Your task to perform on an android device: check android version Image 0: 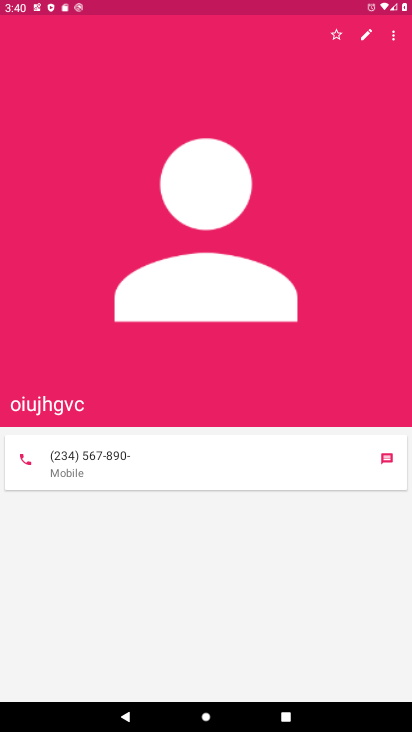
Step 0: press home button
Your task to perform on an android device: check android version Image 1: 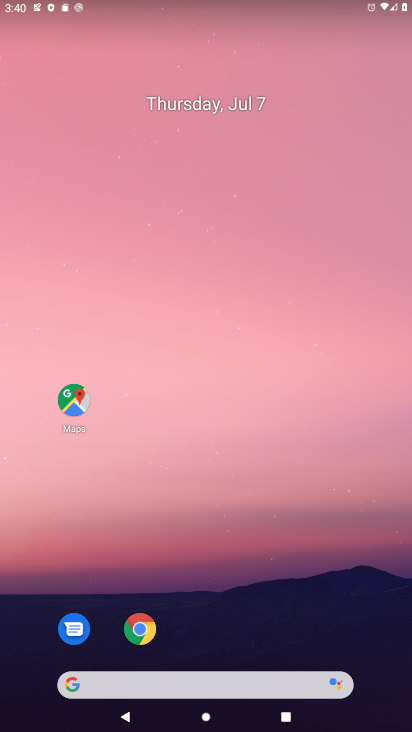
Step 1: drag from (136, 12) to (133, 466)
Your task to perform on an android device: check android version Image 2: 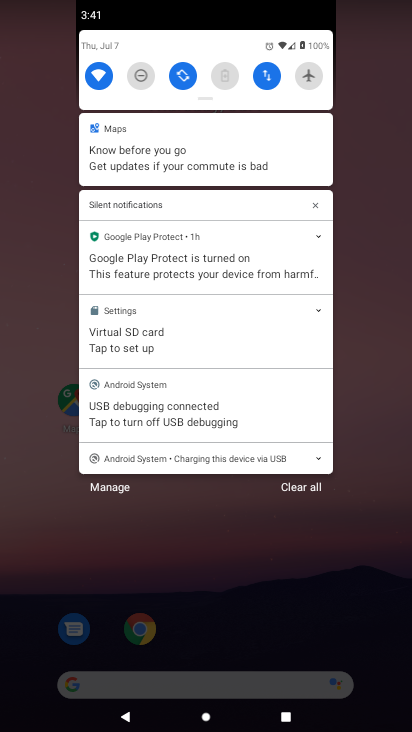
Step 2: drag from (222, 50) to (227, 429)
Your task to perform on an android device: check android version Image 3: 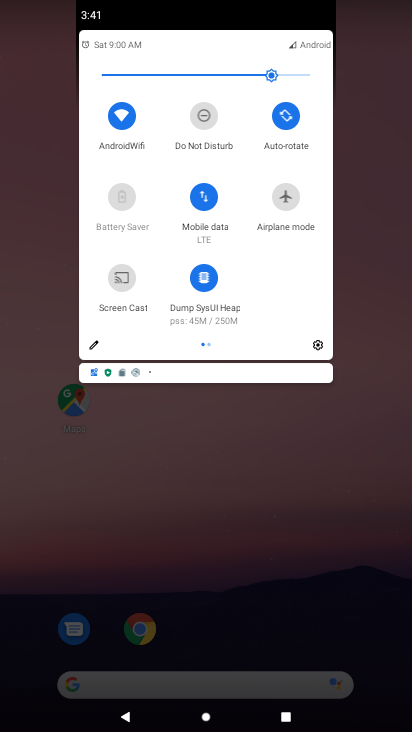
Step 3: click (308, 345)
Your task to perform on an android device: check android version Image 4: 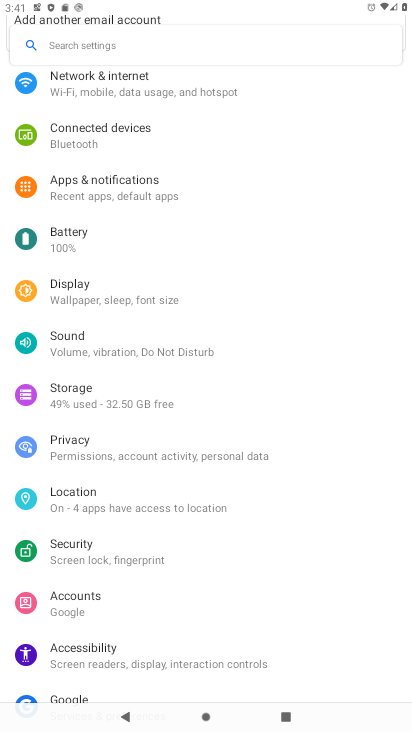
Step 4: drag from (139, 656) to (161, 99)
Your task to perform on an android device: check android version Image 5: 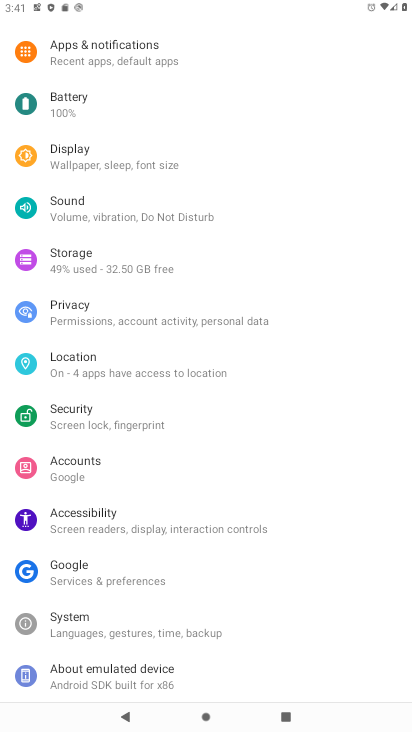
Step 5: drag from (127, 639) to (224, 85)
Your task to perform on an android device: check android version Image 6: 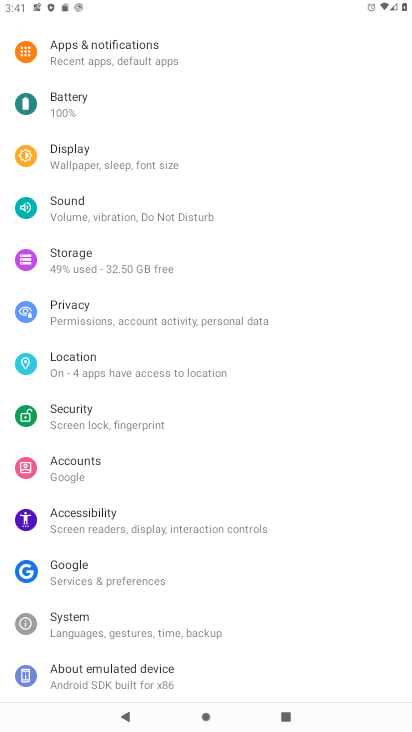
Step 6: drag from (108, 671) to (205, 117)
Your task to perform on an android device: check android version Image 7: 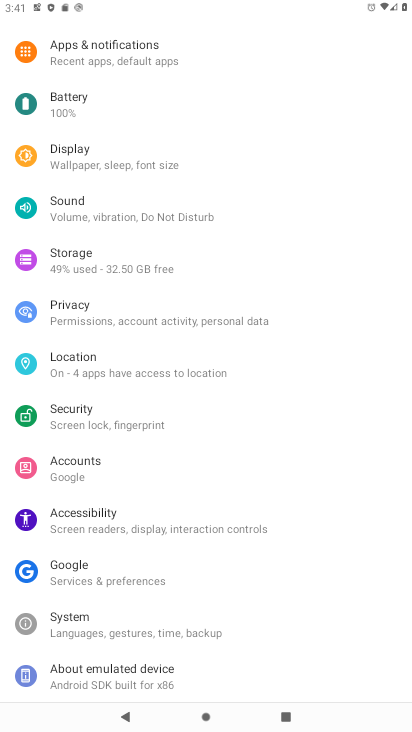
Step 7: click (99, 682)
Your task to perform on an android device: check android version Image 8: 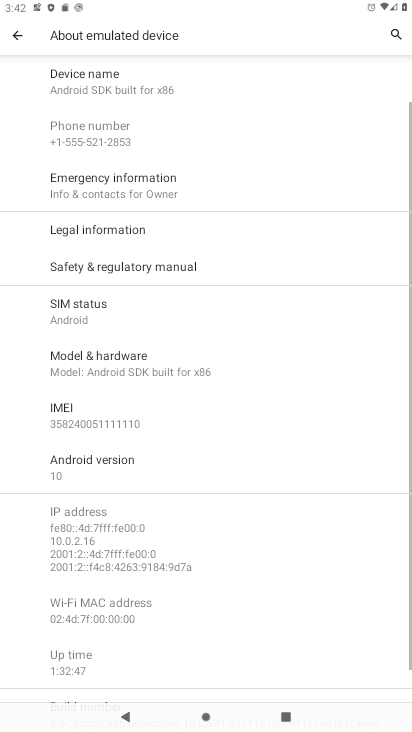
Step 8: task complete